Your task to perform on an android device: open app "Booking.com: Hotels and more" (install if not already installed) Image 0: 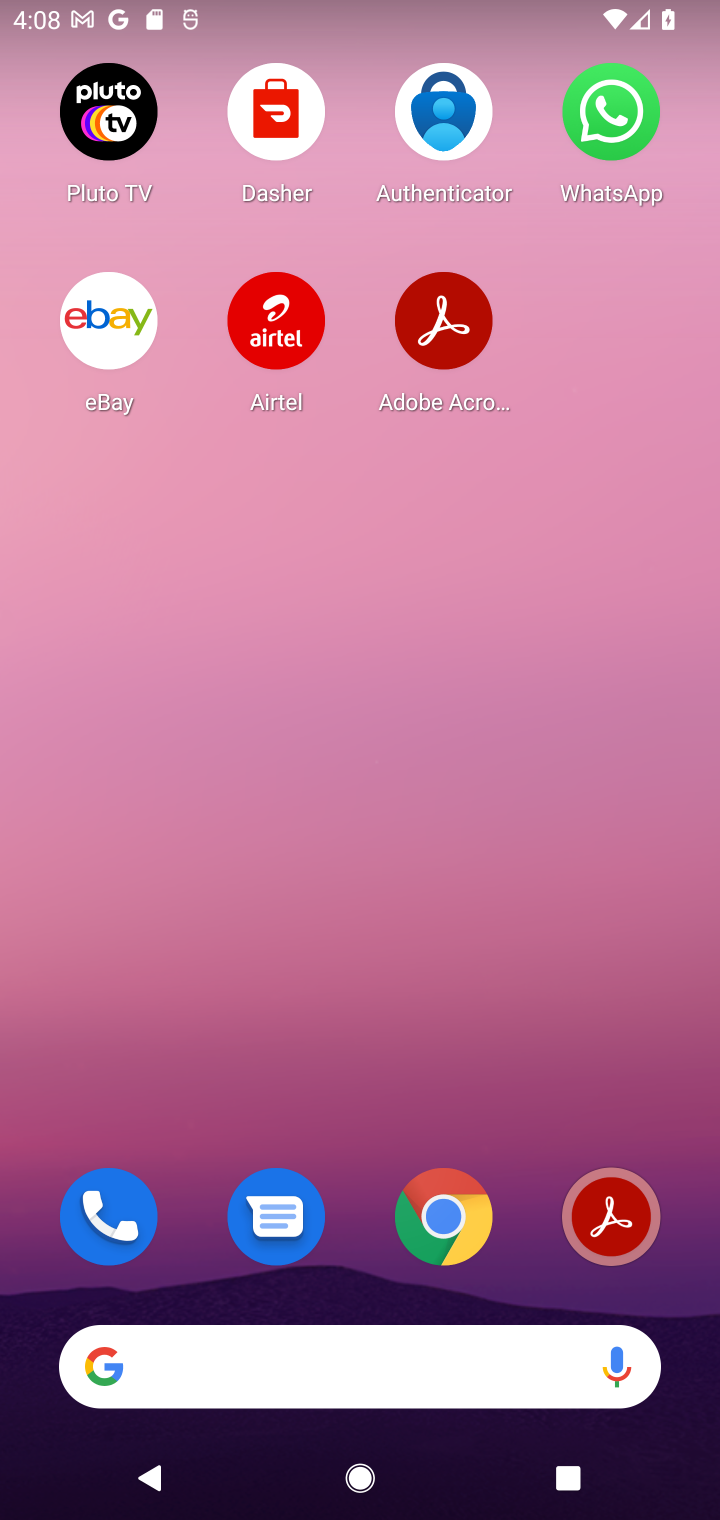
Step 0: drag from (282, 1101) to (262, 255)
Your task to perform on an android device: open app "Booking.com: Hotels and more" (install if not already installed) Image 1: 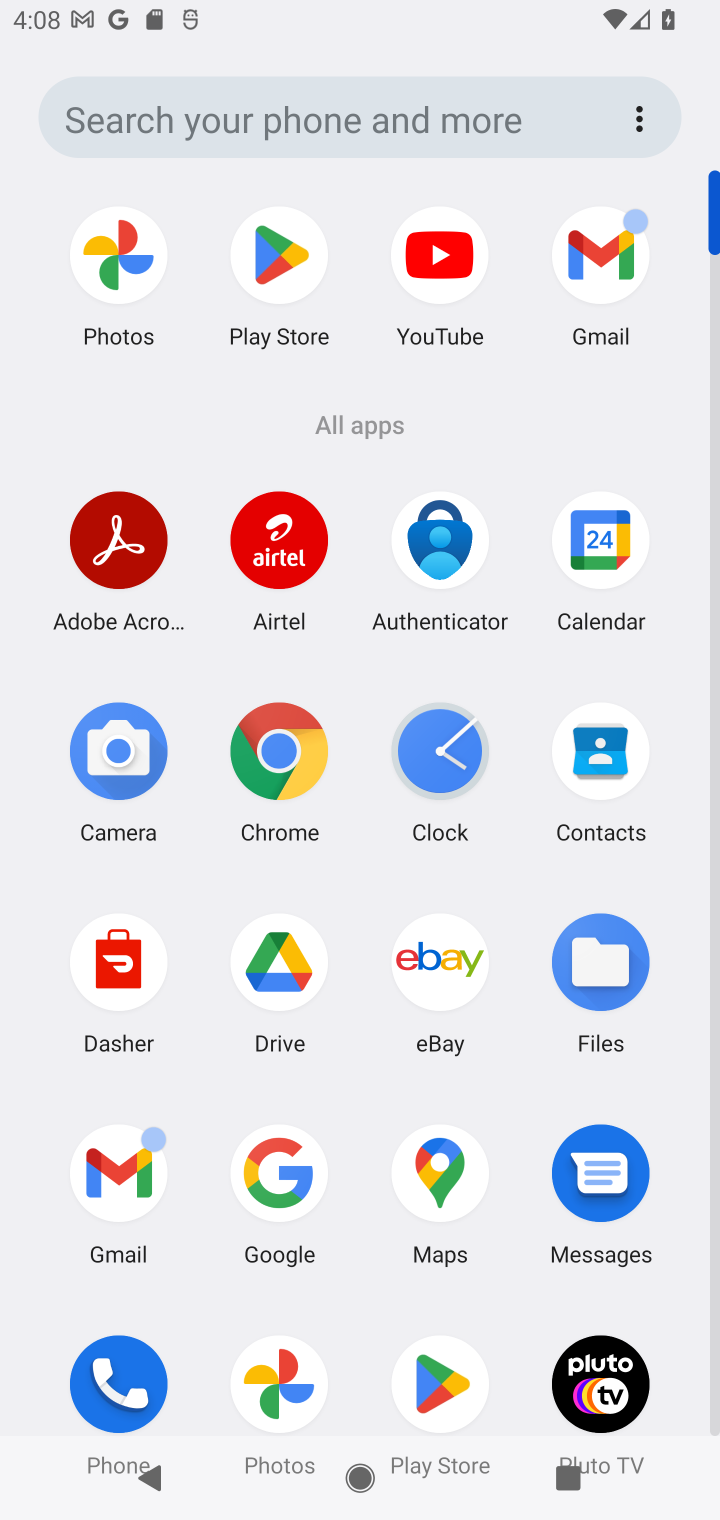
Step 1: click (290, 286)
Your task to perform on an android device: open app "Booking.com: Hotels and more" (install if not already installed) Image 2: 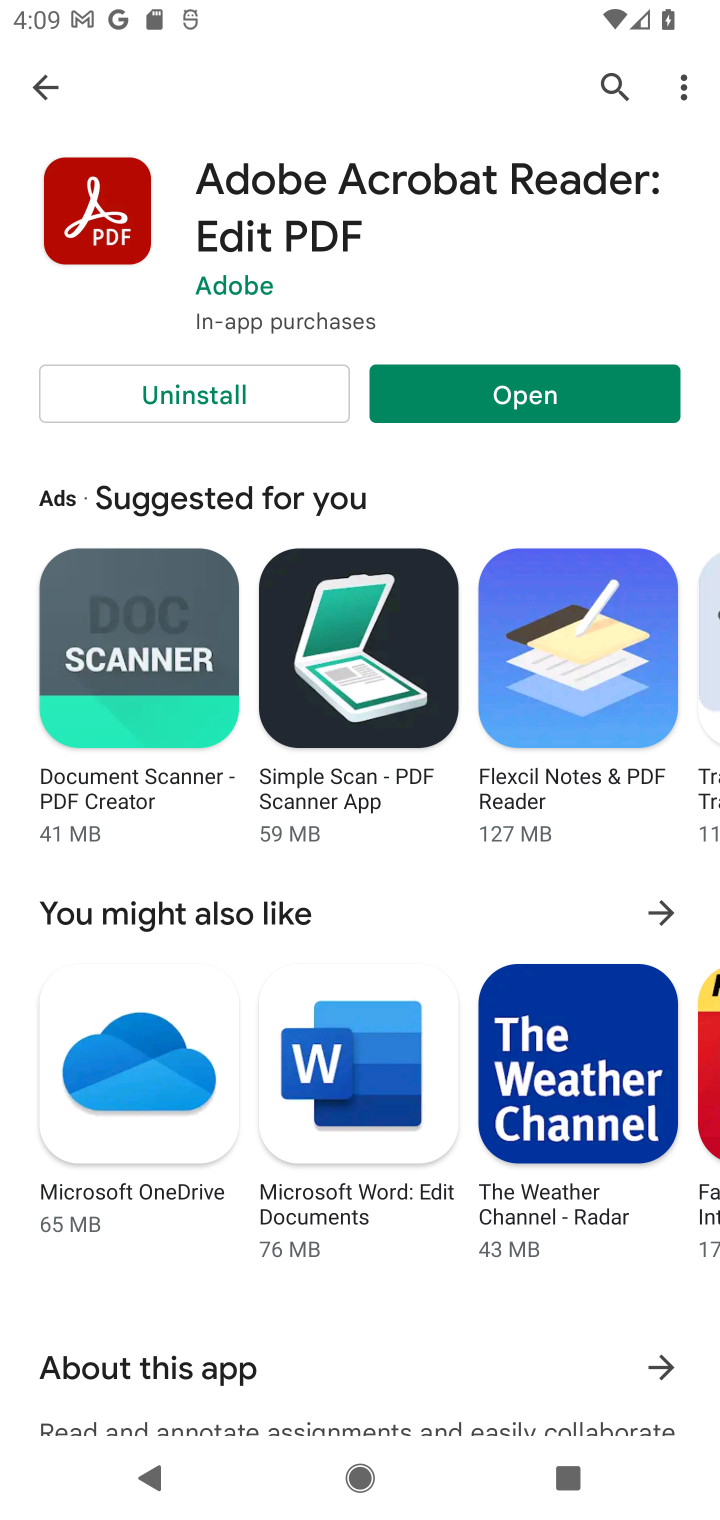
Step 2: click (619, 85)
Your task to perform on an android device: open app "Booking.com: Hotels and more" (install if not already installed) Image 3: 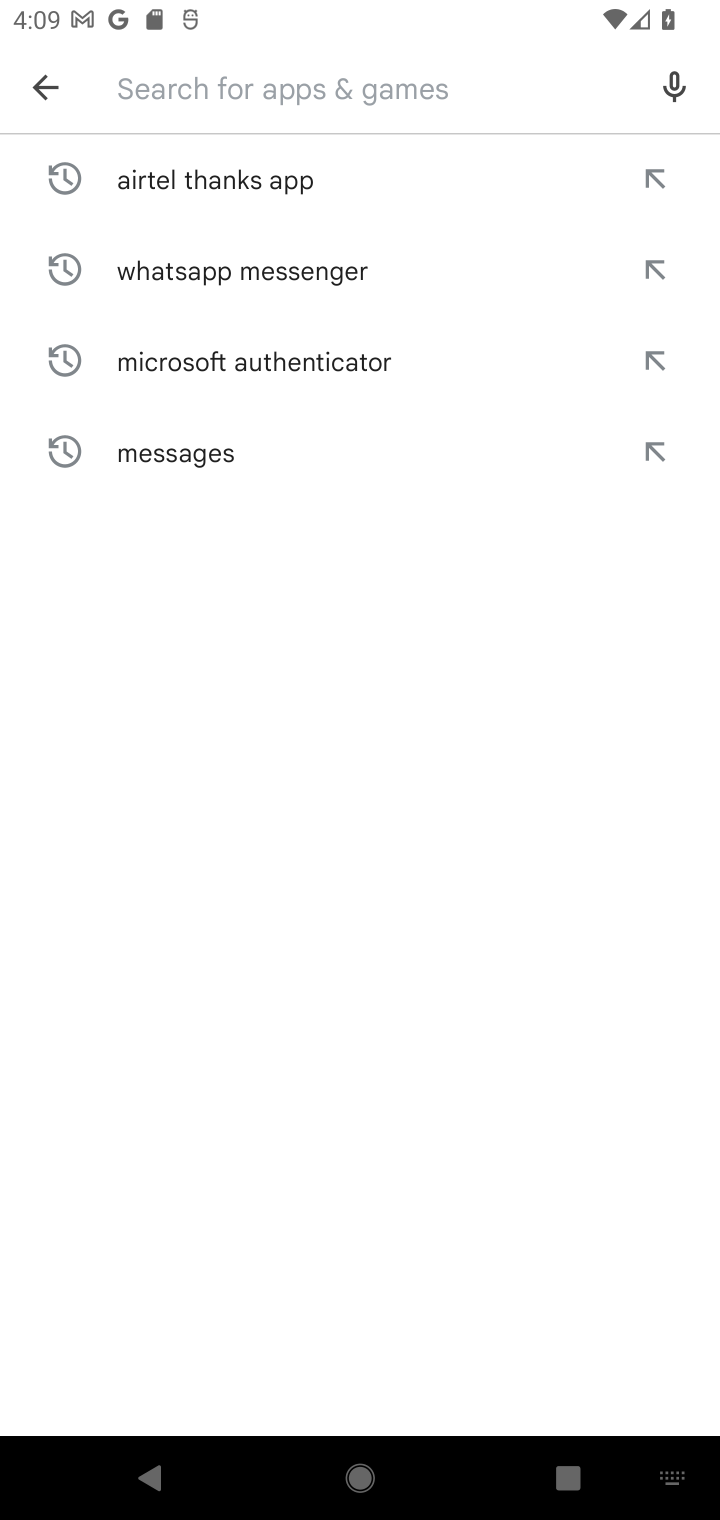
Step 3: type "Booking.com: Hotels and more"
Your task to perform on an android device: open app "Booking.com: Hotels and more" (install if not already installed) Image 4: 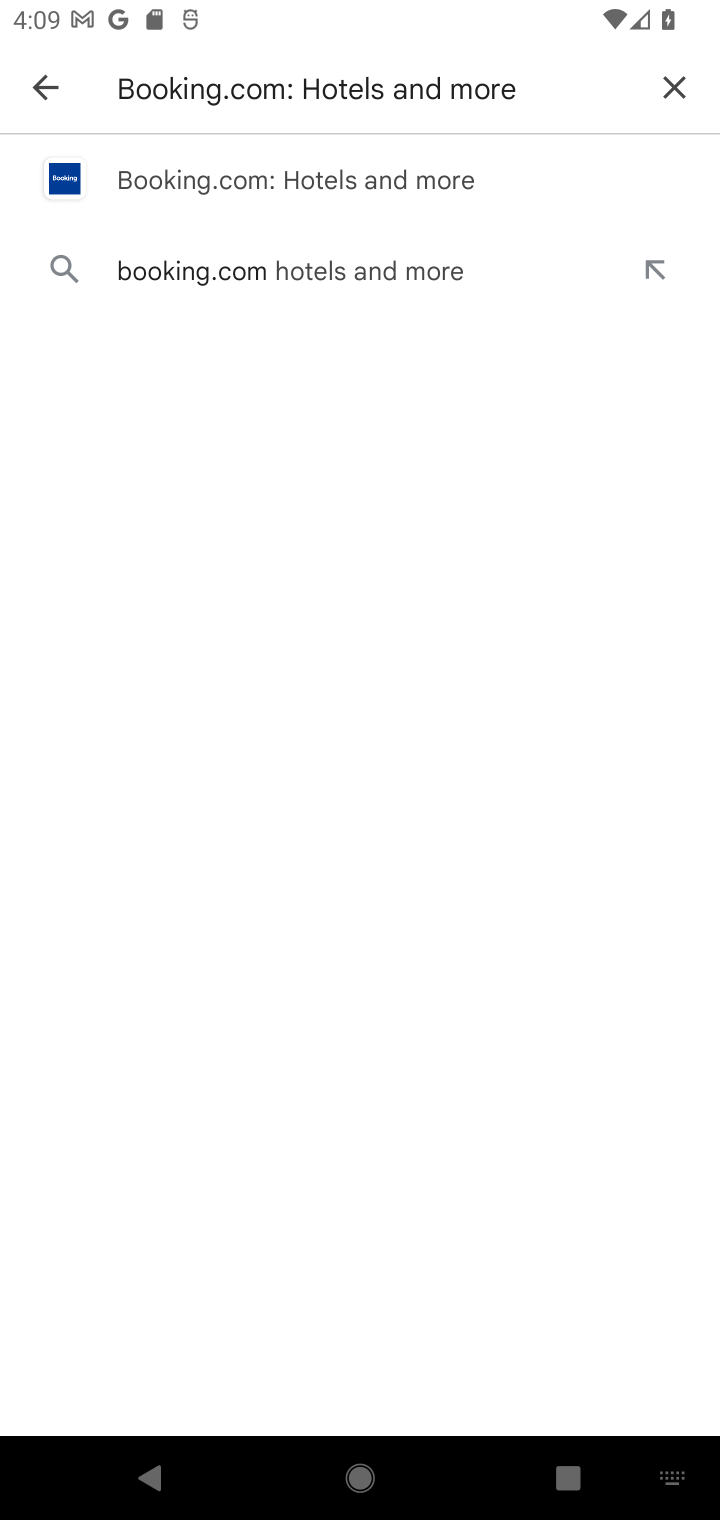
Step 4: click (271, 185)
Your task to perform on an android device: open app "Booking.com: Hotels and more" (install if not already installed) Image 5: 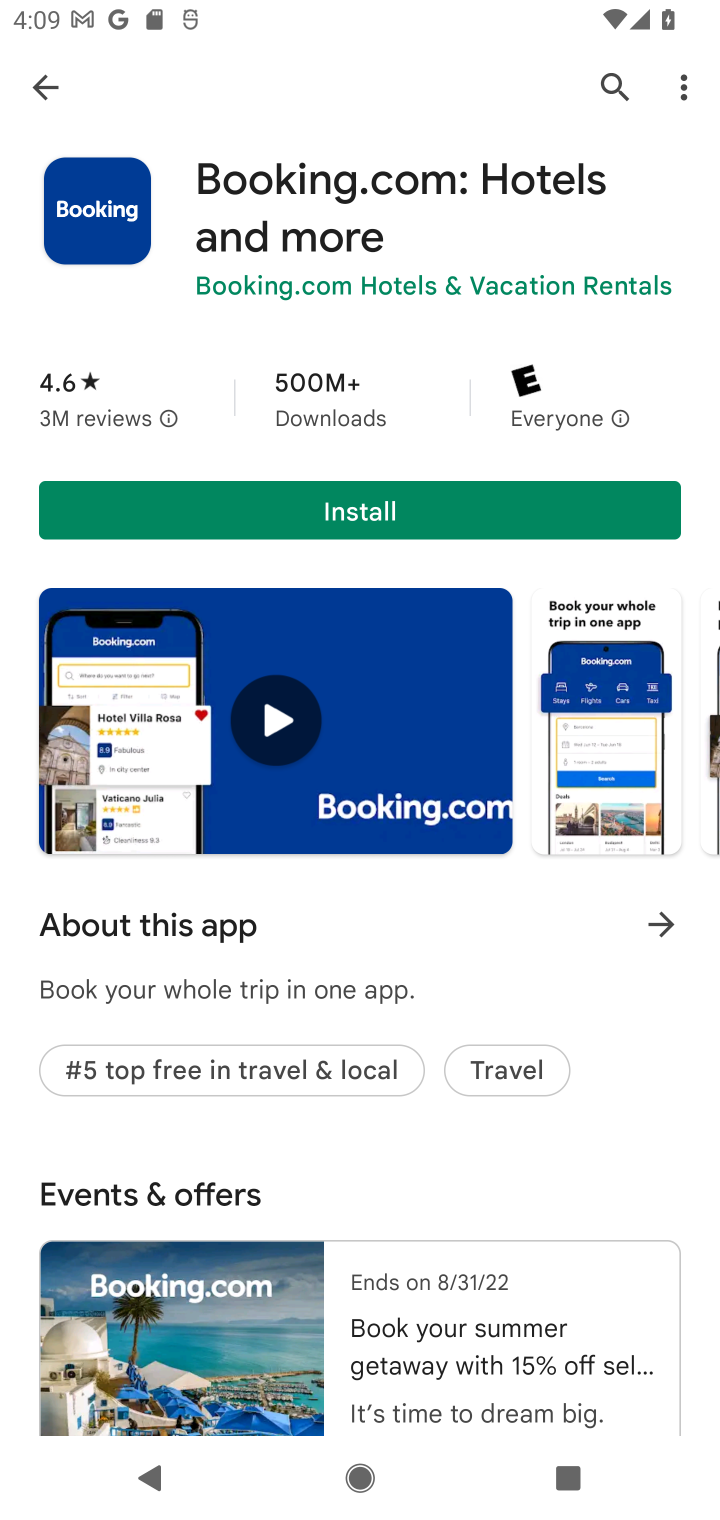
Step 5: click (419, 505)
Your task to perform on an android device: open app "Booking.com: Hotels and more" (install if not already installed) Image 6: 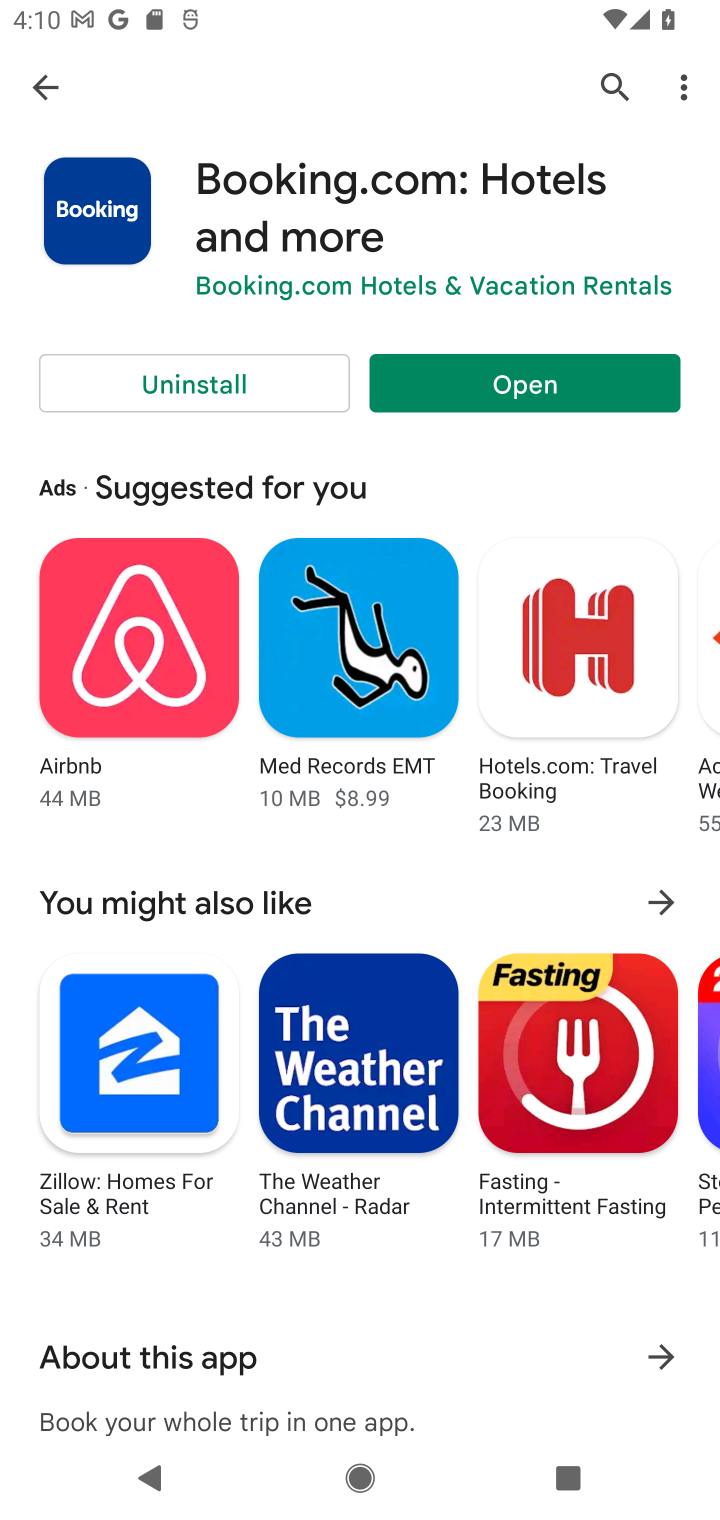
Step 6: click (495, 396)
Your task to perform on an android device: open app "Booking.com: Hotels and more" (install if not already installed) Image 7: 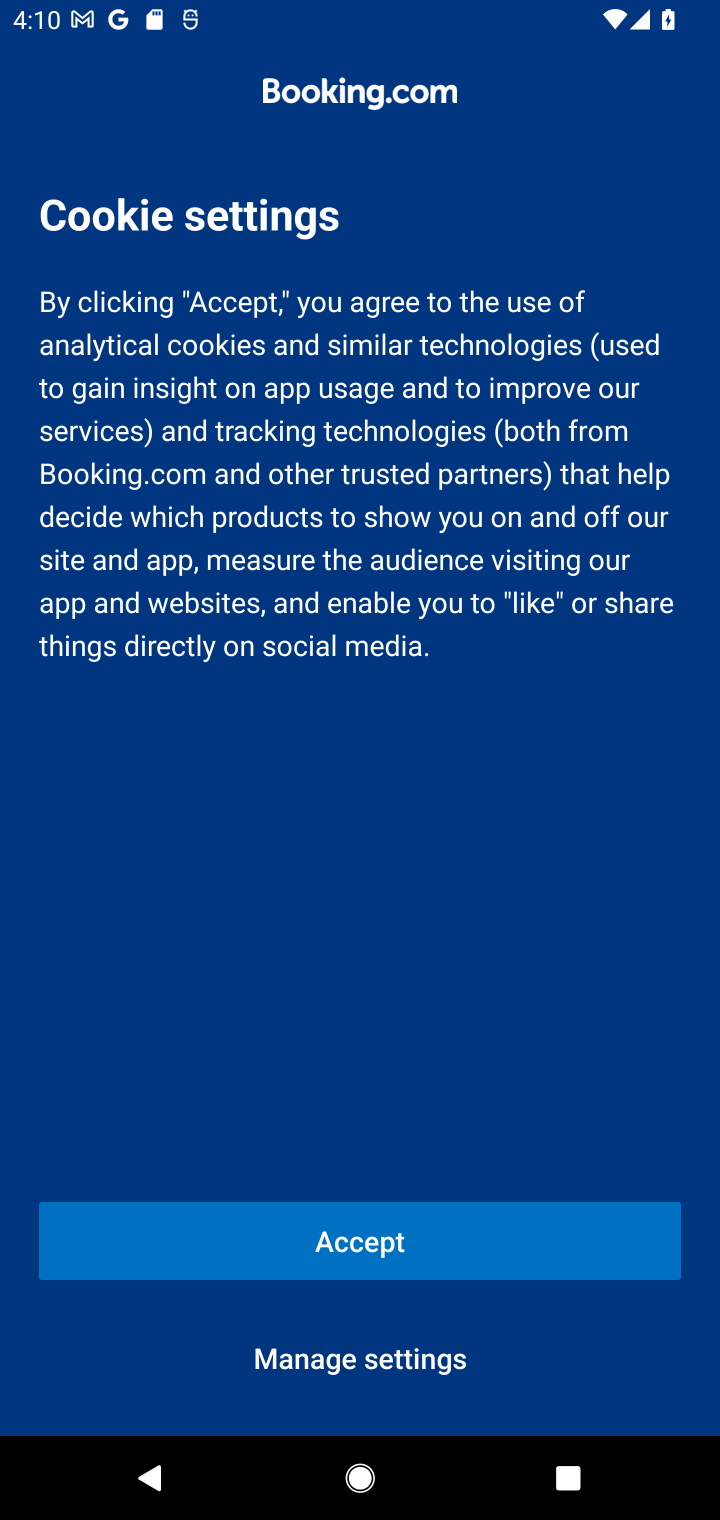
Step 7: task complete